Your task to perform on an android device: Go to Maps Image 0: 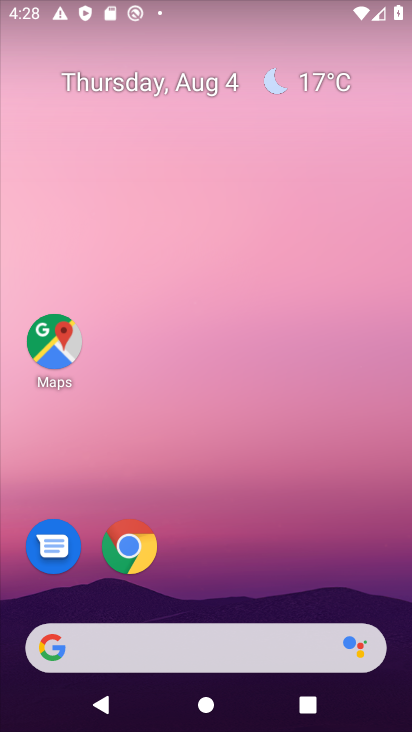
Step 0: click (63, 353)
Your task to perform on an android device: Go to Maps Image 1: 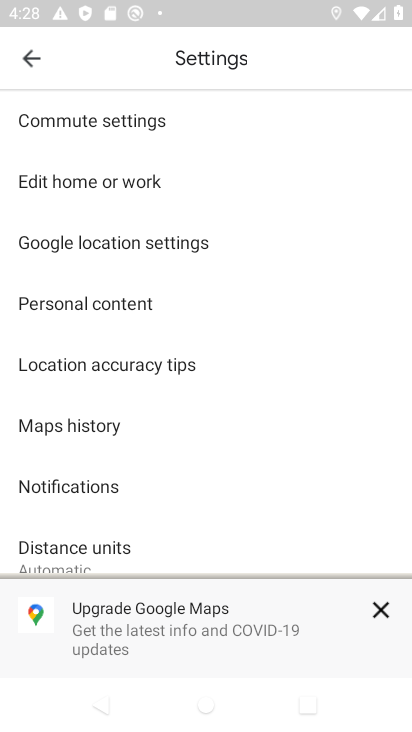
Step 1: task complete